Your task to perform on an android device: Set the phone to "Do not disturb". Image 0: 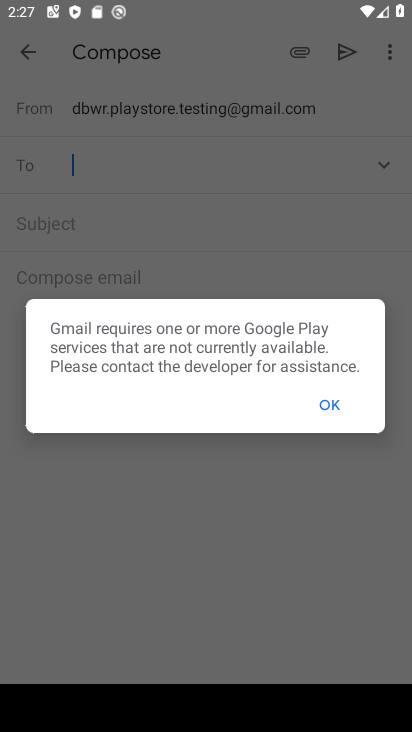
Step 0: click (328, 400)
Your task to perform on an android device: Set the phone to "Do not disturb". Image 1: 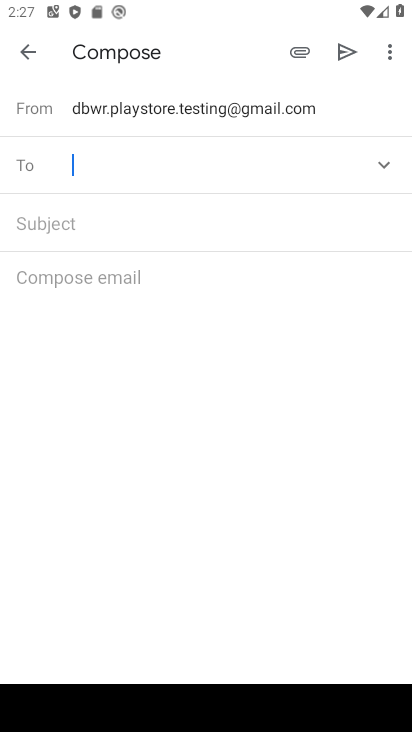
Step 1: drag from (199, 474) to (185, 125)
Your task to perform on an android device: Set the phone to "Do not disturb". Image 2: 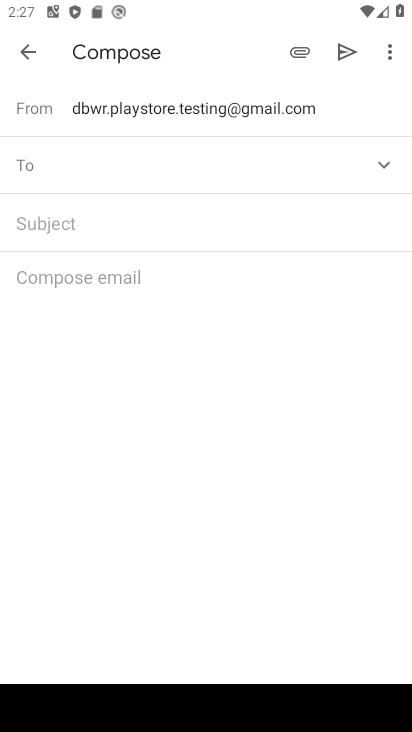
Step 2: drag from (245, 507) to (267, 250)
Your task to perform on an android device: Set the phone to "Do not disturb". Image 3: 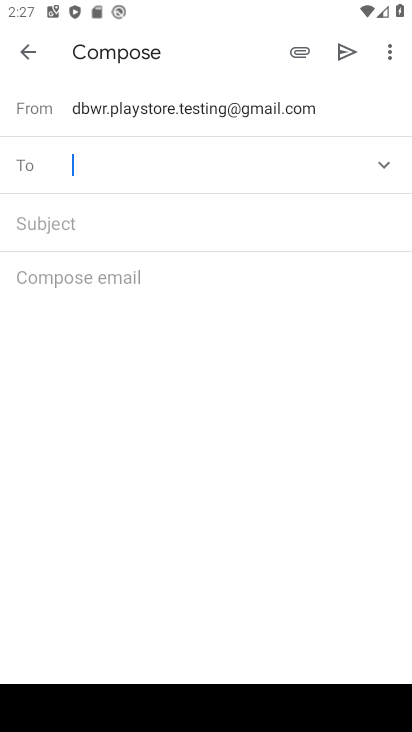
Step 3: press home button
Your task to perform on an android device: Set the phone to "Do not disturb". Image 4: 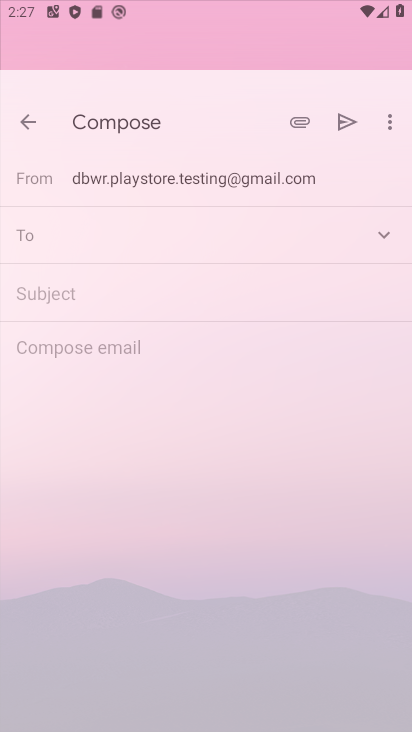
Step 4: drag from (243, 560) to (241, 79)
Your task to perform on an android device: Set the phone to "Do not disturb". Image 5: 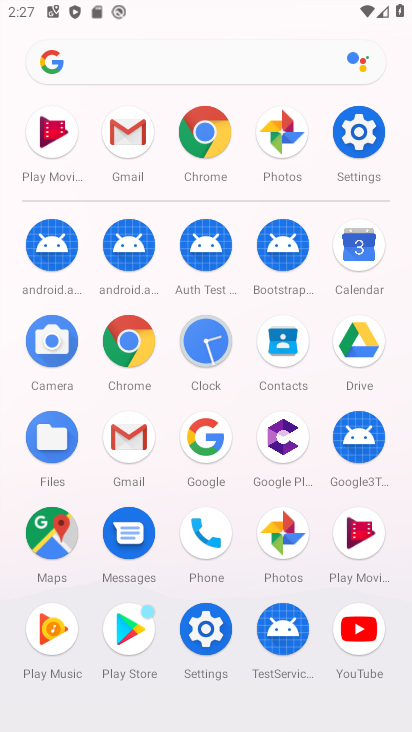
Step 5: click (343, 130)
Your task to perform on an android device: Set the phone to "Do not disturb". Image 6: 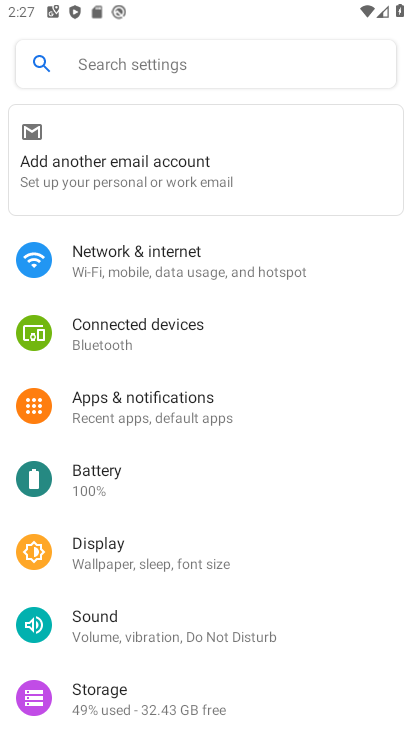
Step 6: click (146, 400)
Your task to perform on an android device: Set the phone to "Do not disturb". Image 7: 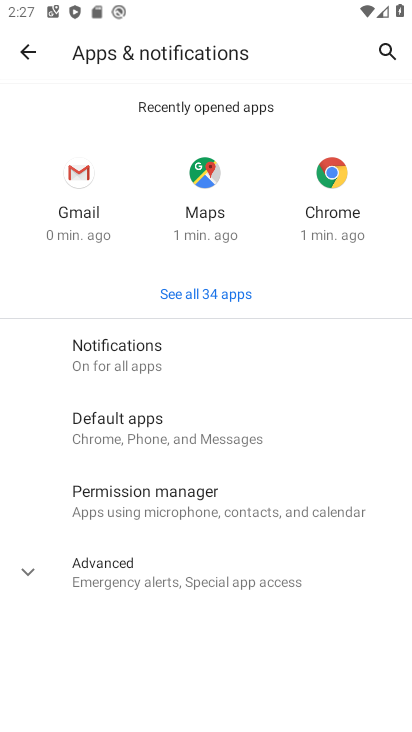
Step 7: drag from (235, 585) to (278, 7)
Your task to perform on an android device: Set the phone to "Do not disturb". Image 8: 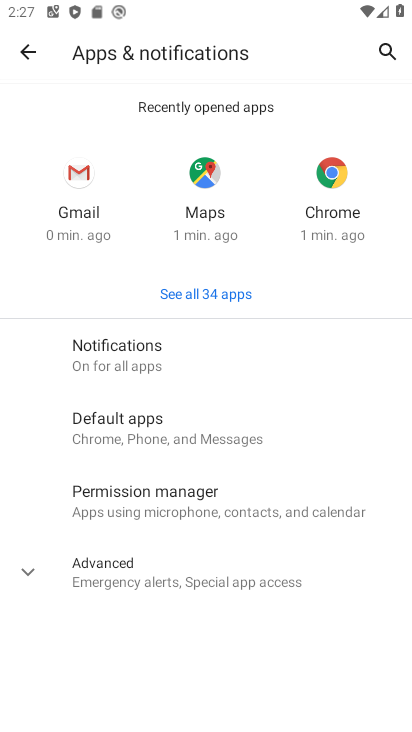
Step 8: click (210, 366)
Your task to perform on an android device: Set the phone to "Do not disturb". Image 9: 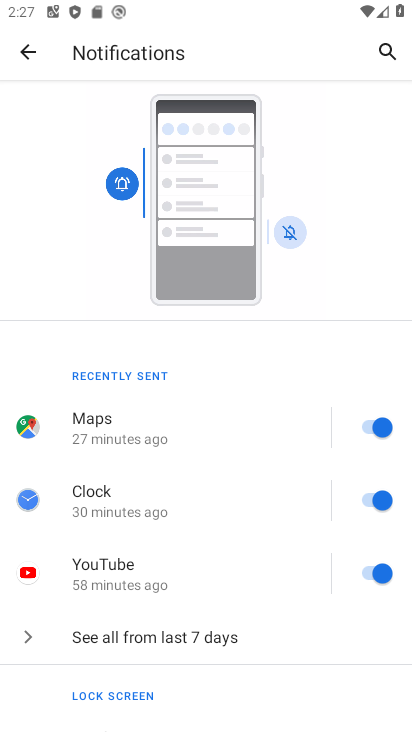
Step 9: drag from (169, 605) to (235, 156)
Your task to perform on an android device: Set the phone to "Do not disturb". Image 10: 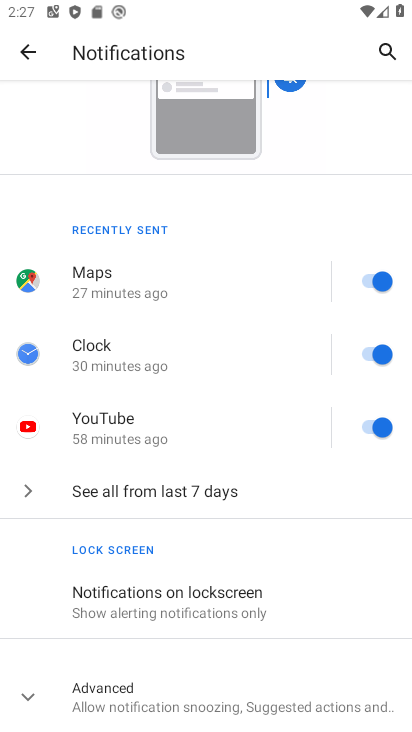
Step 10: drag from (210, 410) to (287, 107)
Your task to perform on an android device: Set the phone to "Do not disturb". Image 11: 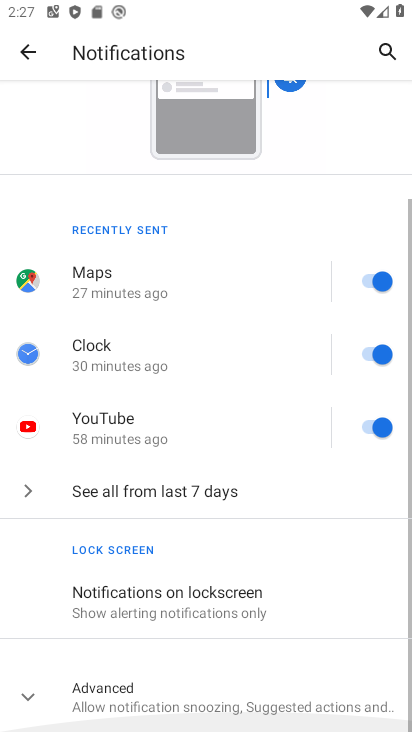
Step 11: drag from (238, 177) to (241, 727)
Your task to perform on an android device: Set the phone to "Do not disturb". Image 12: 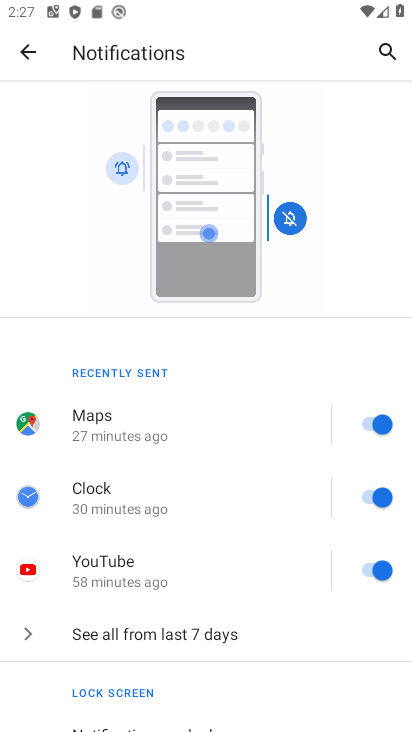
Step 12: drag from (214, 506) to (325, 130)
Your task to perform on an android device: Set the phone to "Do not disturb". Image 13: 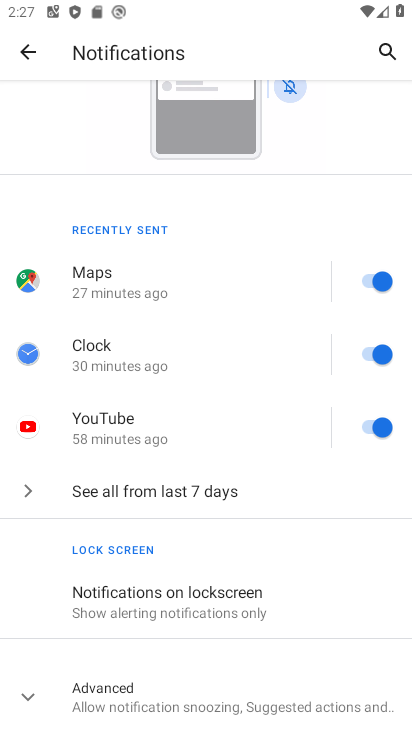
Step 13: click (116, 690)
Your task to perform on an android device: Set the phone to "Do not disturb". Image 14: 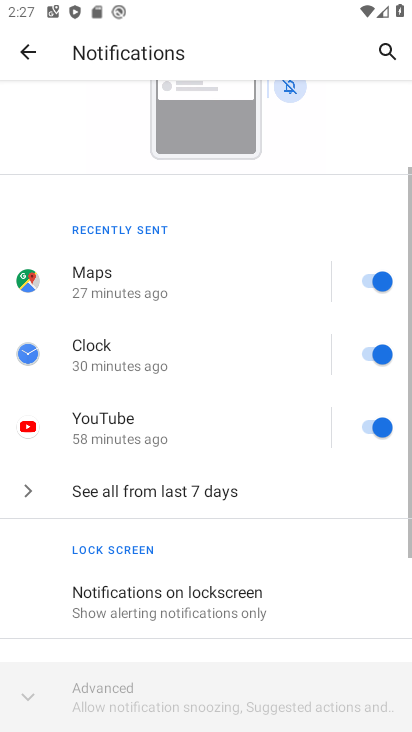
Step 14: drag from (156, 639) to (255, 83)
Your task to perform on an android device: Set the phone to "Do not disturb". Image 15: 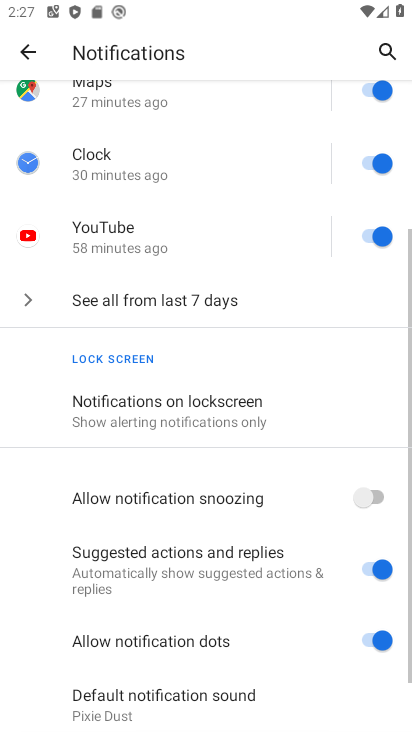
Step 15: click (178, 708)
Your task to perform on an android device: Set the phone to "Do not disturb". Image 16: 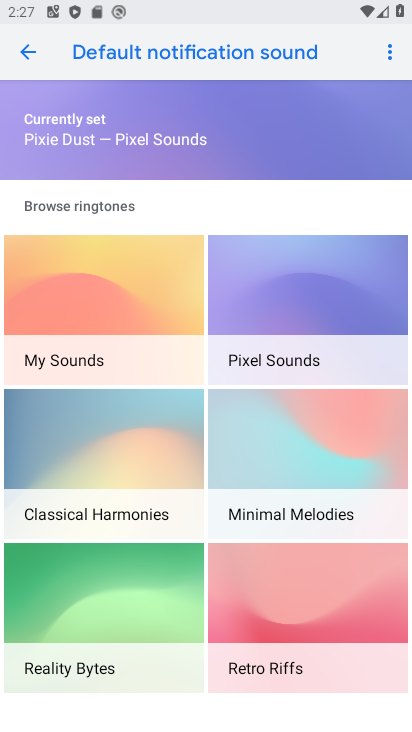
Step 16: press back button
Your task to perform on an android device: Set the phone to "Do not disturb". Image 17: 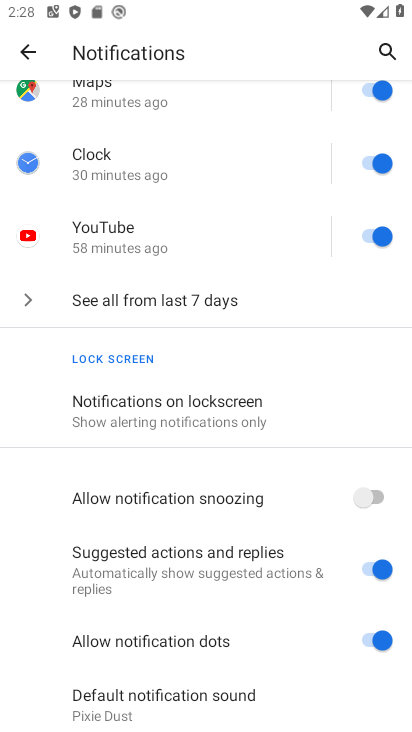
Step 17: drag from (194, 646) to (280, 3)
Your task to perform on an android device: Set the phone to "Do not disturb". Image 18: 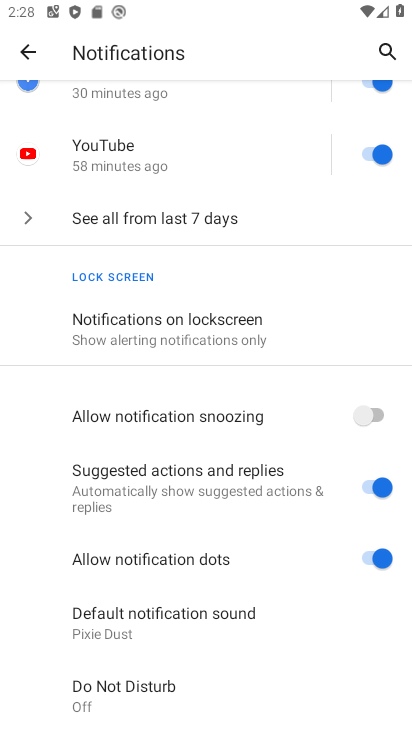
Step 18: click (179, 692)
Your task to perform on an android device: Set the phone to "Do not disturb". Image 19: 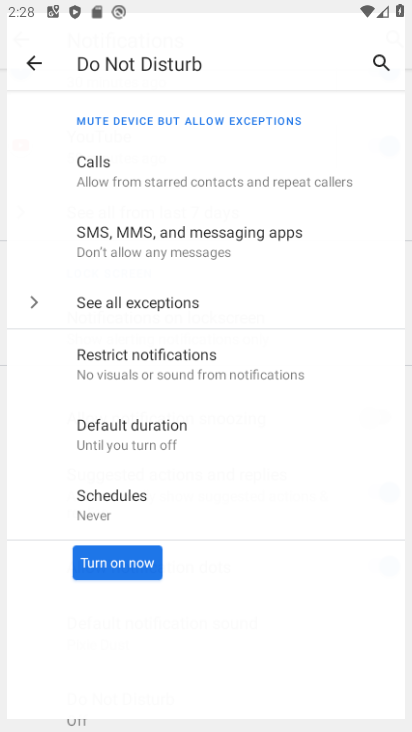
Step 19: drag from (192, 658) to (223, 180)
Your task to perform on an android device: Set the phone to "Do not disturb". Image 20: 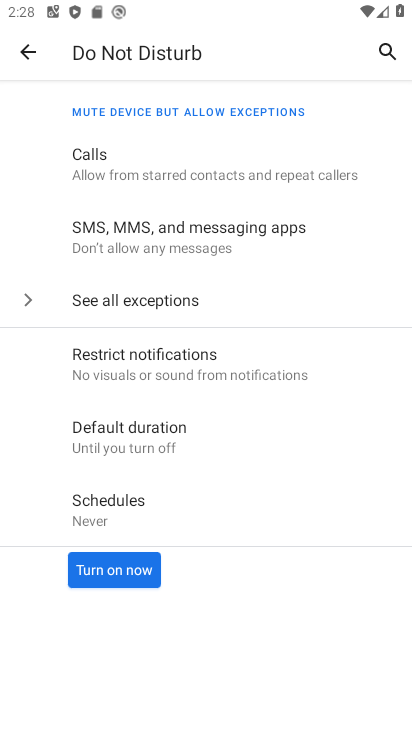
Step 20: click (102, 582)
Your task to perform on an android device: Set the phone to "Do not disturb". Image 21: 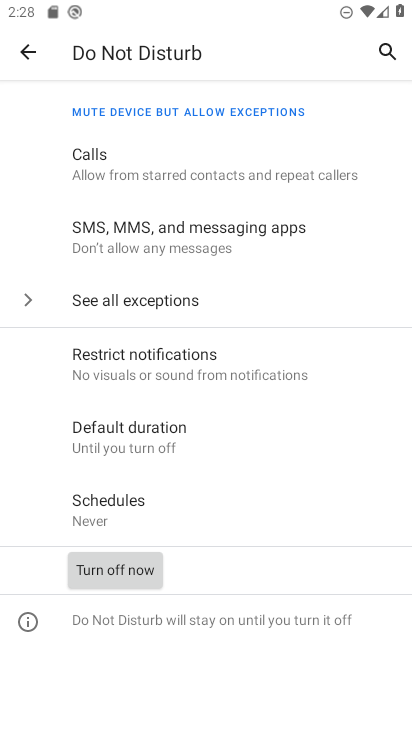
Step 21: drag from (300, 573) to (304, 374)
Your task to perform on an android device: Set the phone to "Do not disturb". Image 22: 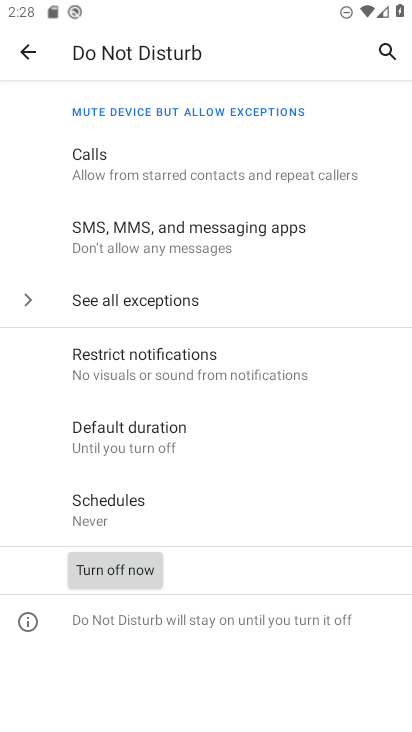
Step 22: click (146, 579)
Your task to perform on an android device: Set the phone to "Do not disturb". Image 23: 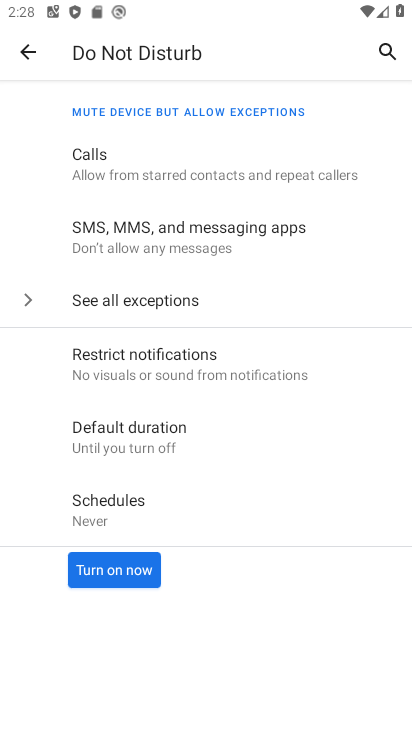
Step 23: click (144, 577)
Your task to perform on an android device: Set the phone to "Do not disturb". Image 24: 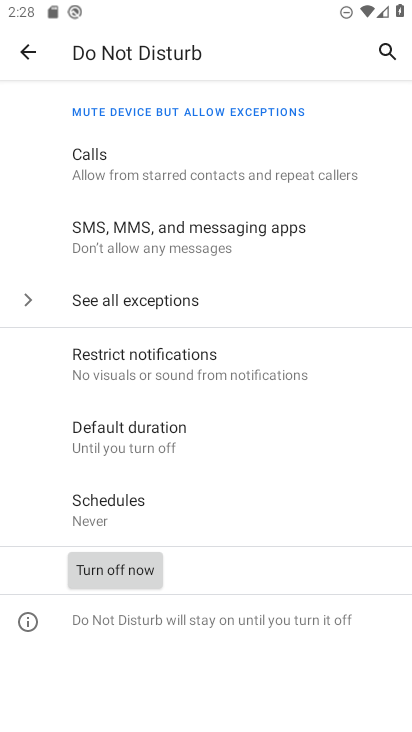
Step 24: task complete